Your task to perform on an android device: open sync settings in chrome Image 0: 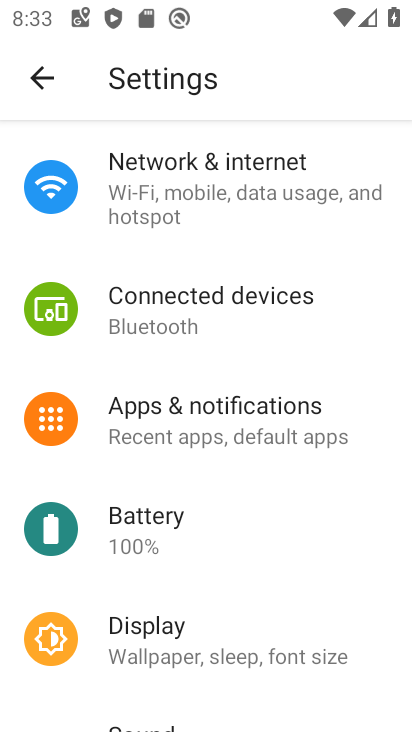
Step 0: press home button
Your task to perform on an android device: open sync settings in chrome Image 1: 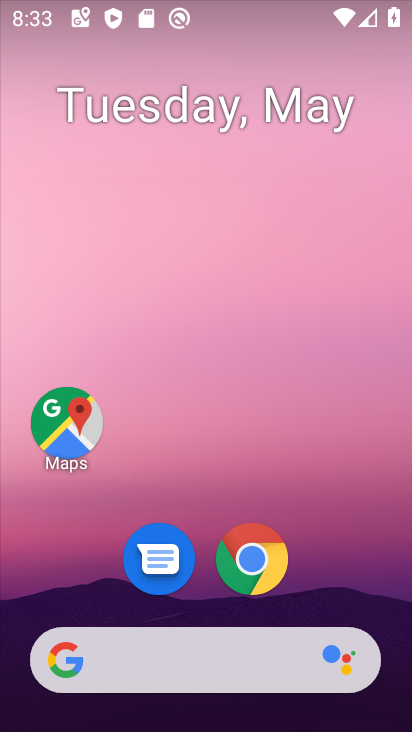
Step 1: click (280, 546)
Your task to perform on an android device: open sync settings in chrome Image 2: 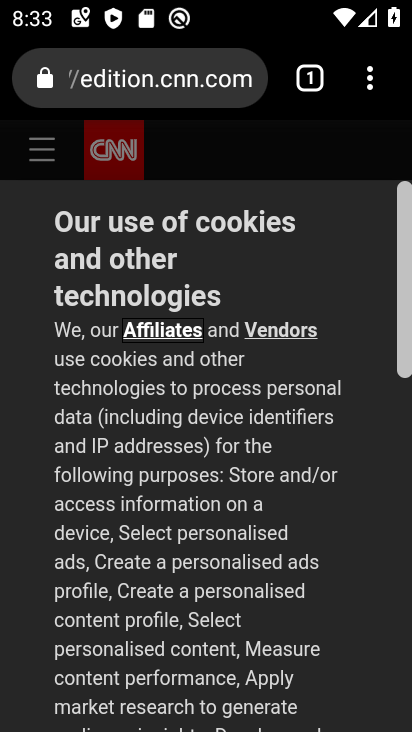
Step 2: drag from (369, 81) to (124, 617)
Your task to perform on an android device: open sync settings in chrome Image 3: 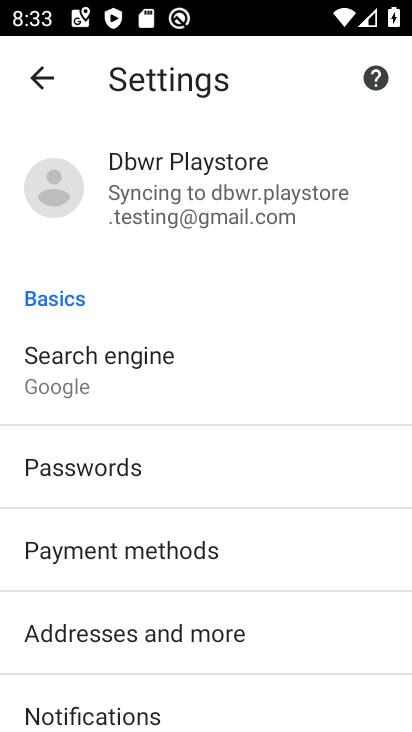
Step 3: click (227, 188)
Your task to perform on an android device: open sync settings in chrome Image 4: 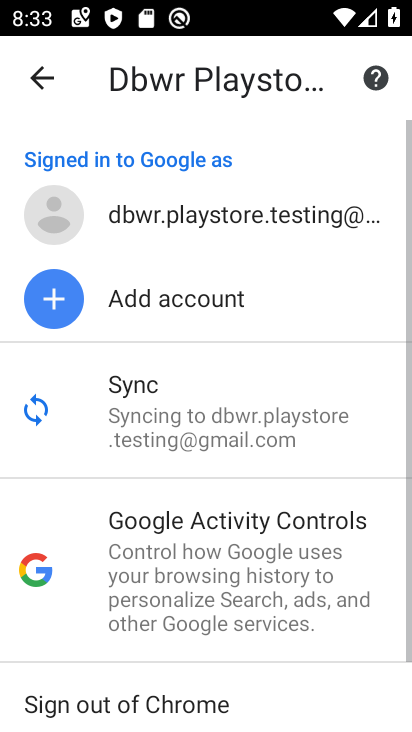
Step 4: click (147, 412)
Your task to perform on an android device: open sync settings in chrome Image 5: 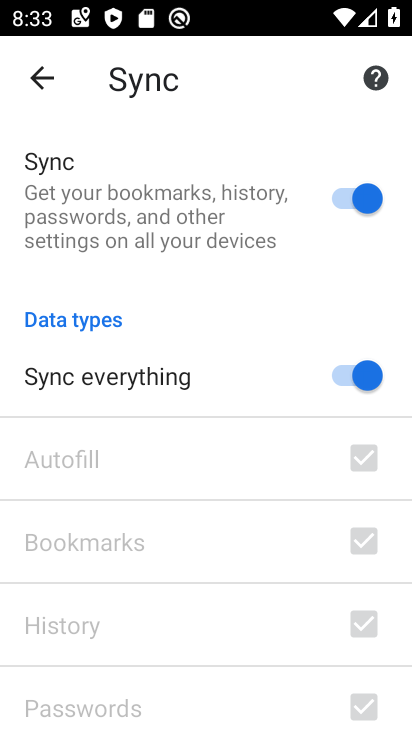
Step 5: task complete